Your task to perform on an android device: Open eBay Image 0: 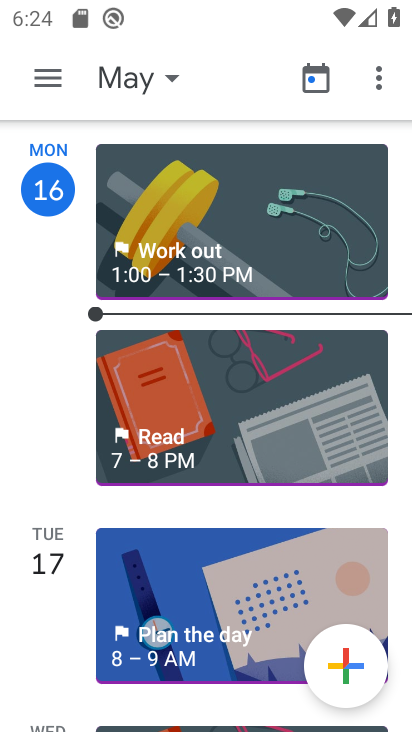
Step 0: press home button
Your task to perform on an android device: Open eBay Image 1: 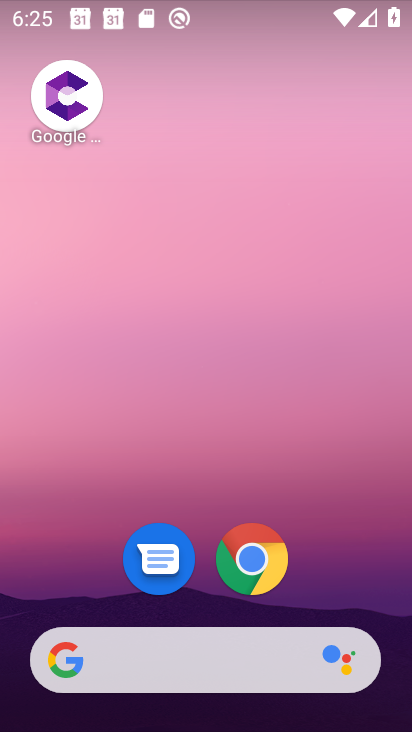
Step 1: drag from (406, 677) to (297, 100)
Your task to perform on an android device: Open eBay Image 2: 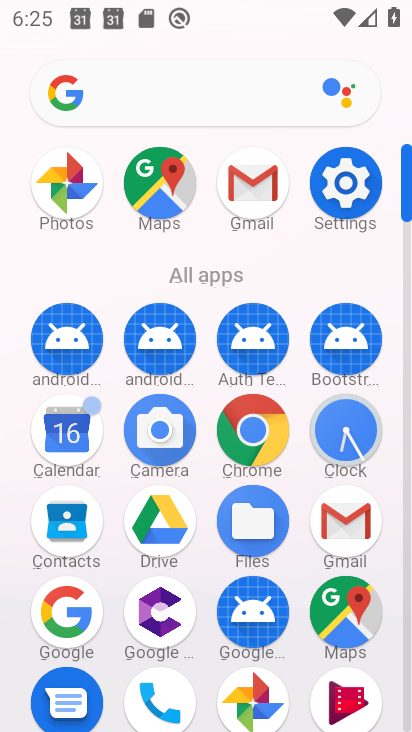
Step 2: click (269, 441)
Your task to perform on an android device: Open eBay Image 3: 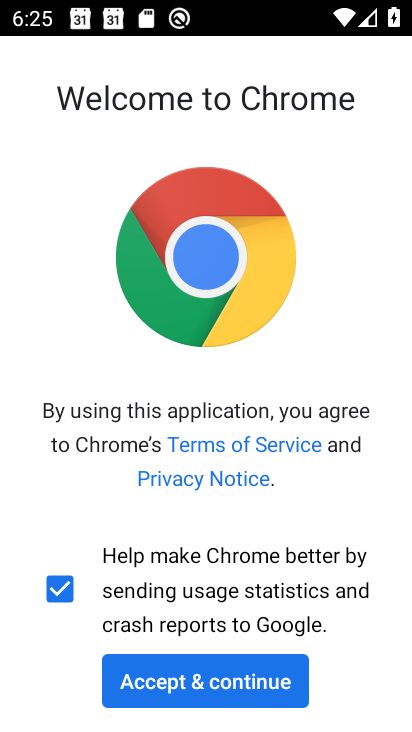
Step 3: click (223, 669)
Your task to perform on an android device: Open eBay Image 4: 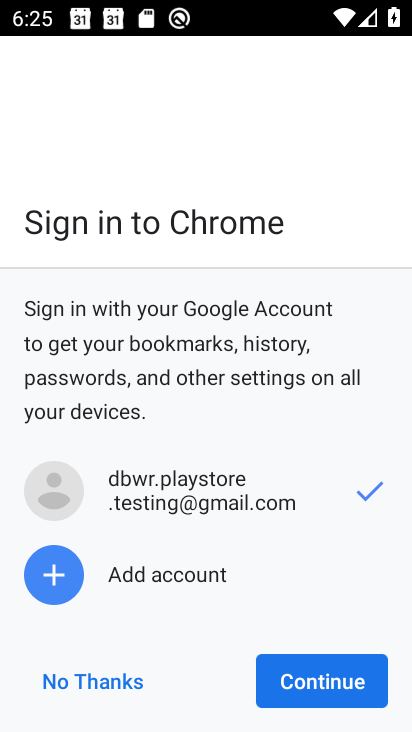
Step 4: click (275, 678)
Your task to perform on an android device: Open eBay Image 5: 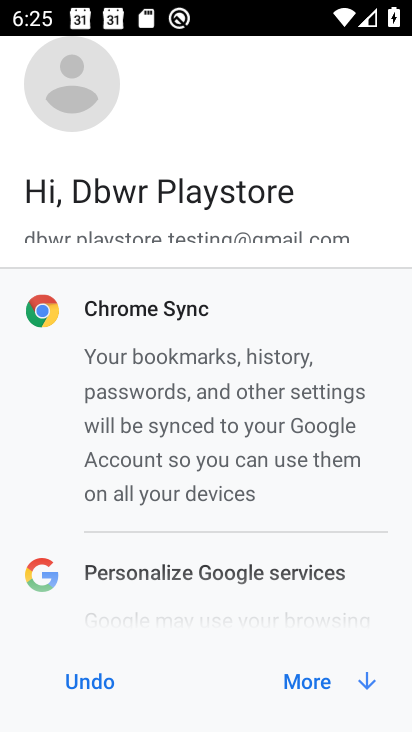
Step 5: click (275, 678)
Your task to perform on an android device: Open eBay Image 6: 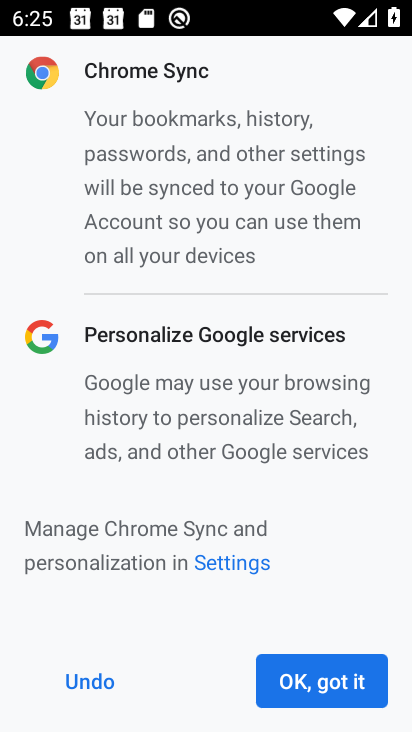
Step 6: click (275, 678)
Your task to perform on an android device: Open eBay Image 7: 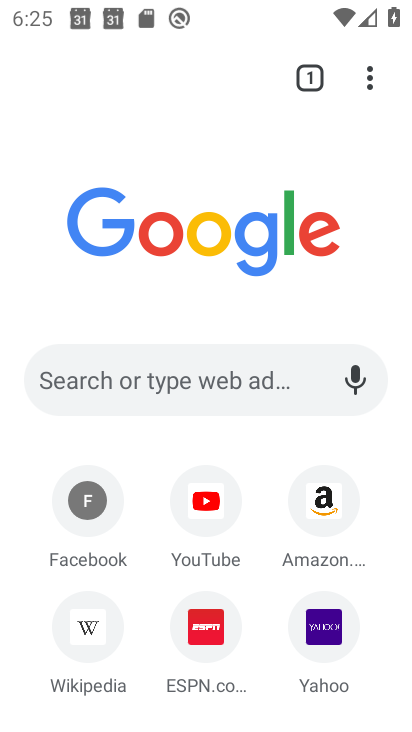
Step 7: click (146, 387)
Your task to perform on an android device: Open eBay Image 8: 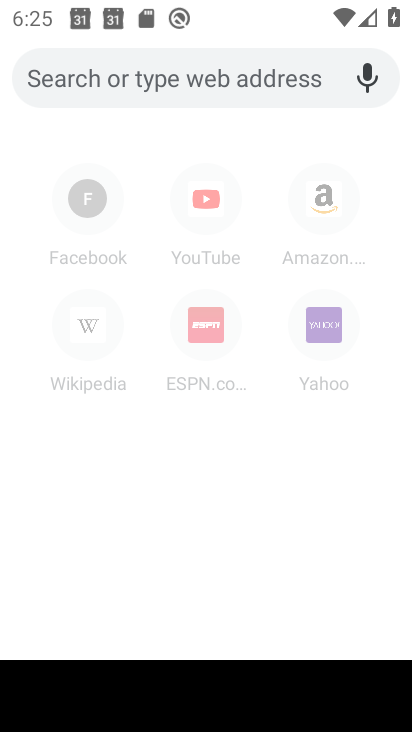
Step 8: type "ebay"
Your task to perform on an android device: Open eBay Image 9: 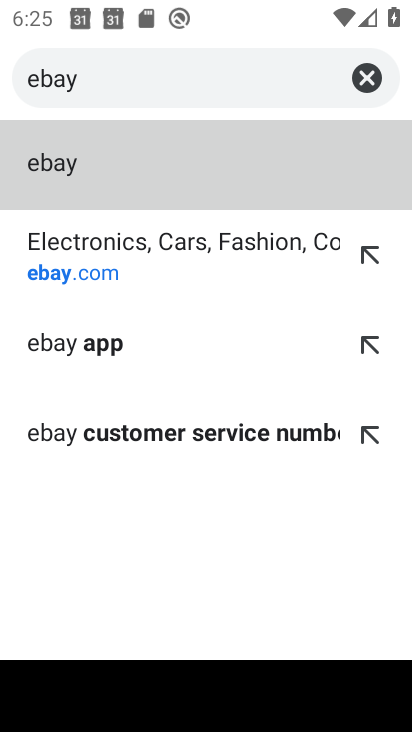
Step 9: click (229, 153)
Your task to perform on an android device: Open eBay Image 10: 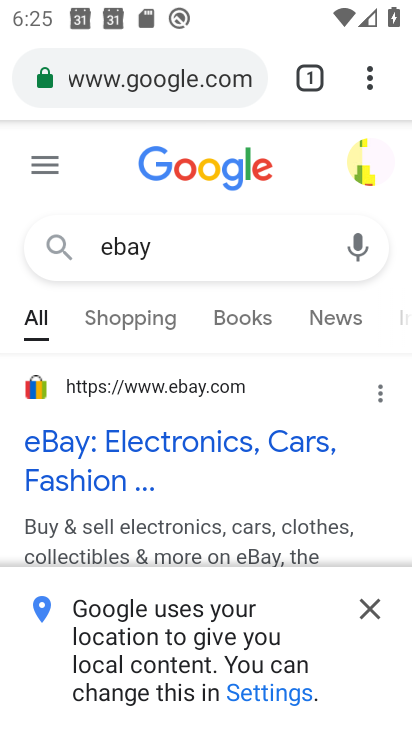
Step 10: click (206, 432)
Your task to perform on an android device: Open eBay Image 11: 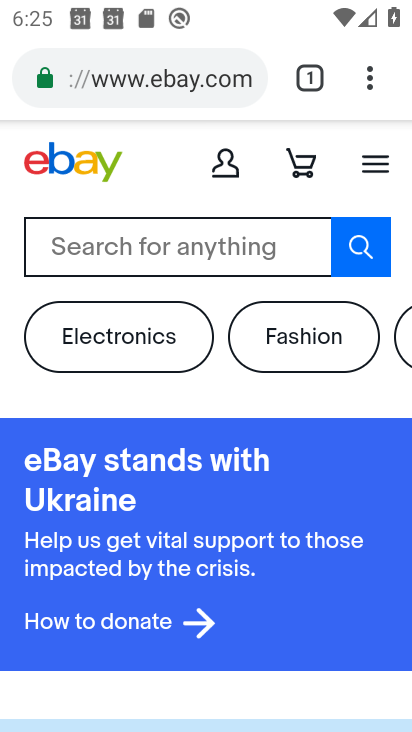
Step 11: task complete